Your task to perform on an android device: Open Google Chrome Image 0: 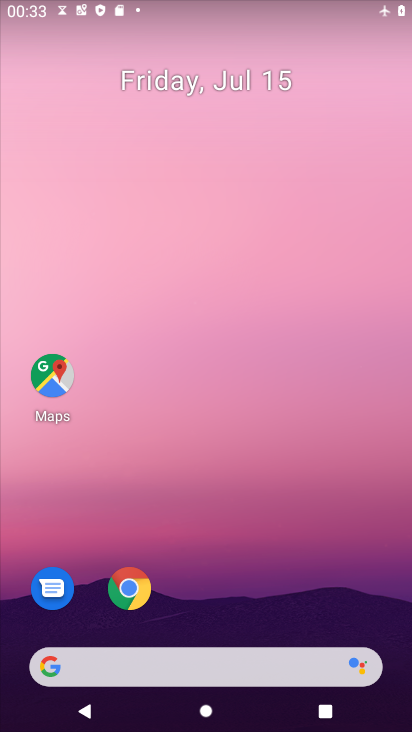
Step 0: click (138, 590)
Your task to perform on an android device: Open Google Chrome Image 1: 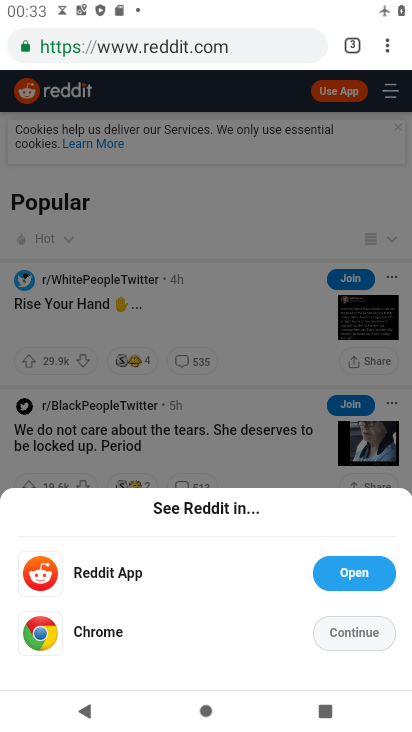
Step 1: task complete